Your task to perform on an android device: find which apps use the phone's location Image 0: 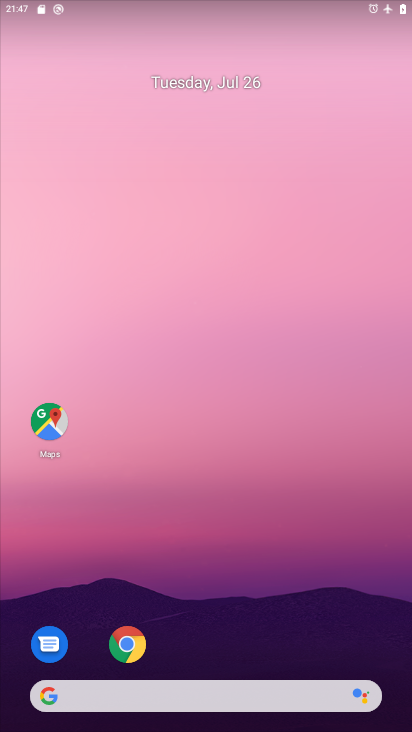
Step 0: click (230, 383)
Your task to perform on an android device: find which apps use the phone's location Image 1: 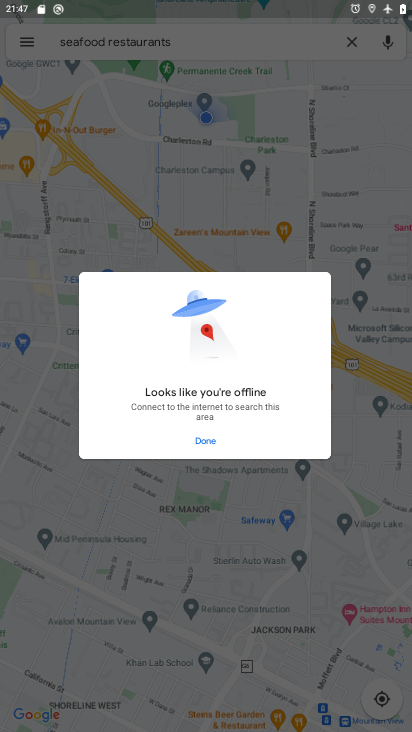
Step 1: press home button
Your task to perform on an android device: find which apps use the phone's location Image 2: 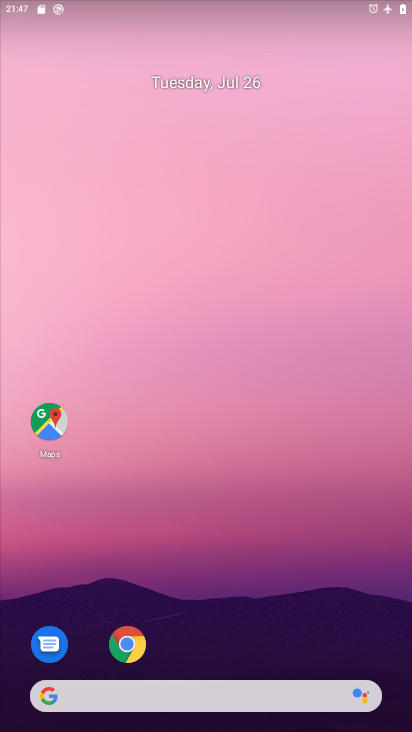
Step 2: drag from (195, 678) to (251, 262)
Your task to perform on an android device: find which apps use the phone's location Image 3: 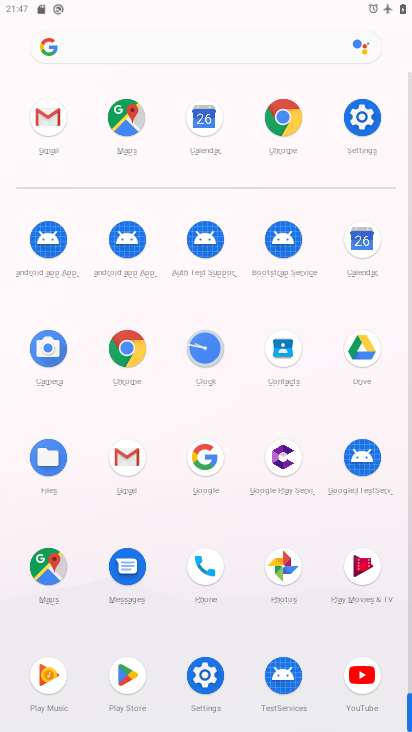
Step 3: click (362, 112)
Your task to perform on an android device: find which apps use the phone's location Image 4: 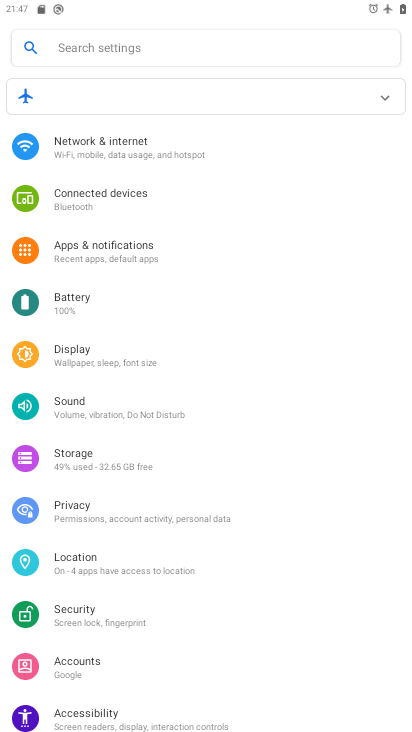
Step 4: click (86, 571)
Your task to perform on an android device: find which apps use the phone's location Image 5: 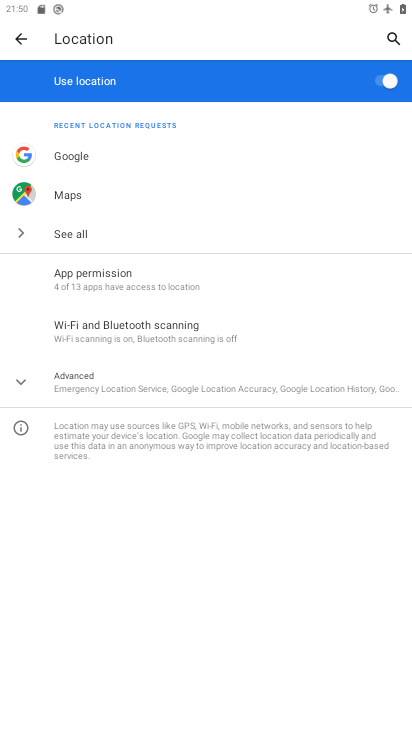
Step 5: task complete